Your task to perform on an android device: toggle translation in the chrome app Image 0: 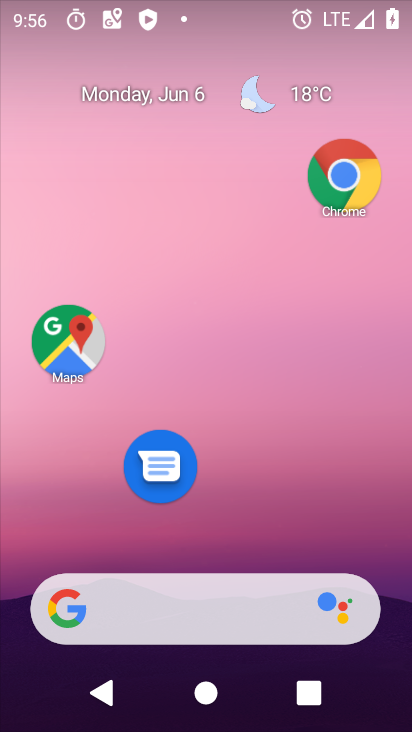
Step 0: drag from (202, 532) to (219, 88)
Your task to perform on an android device: toggle translation in the chrome app Image 1: 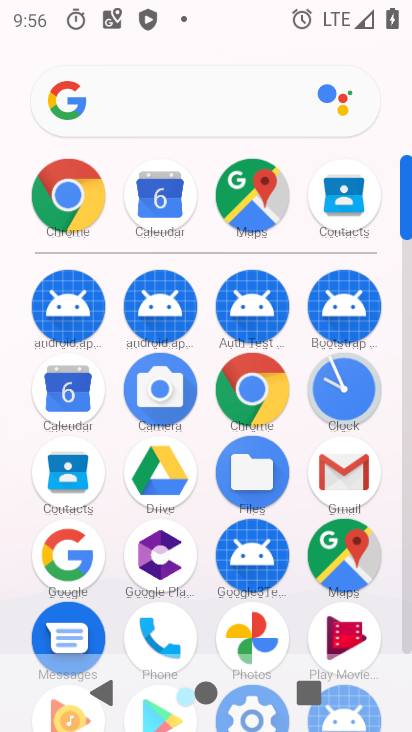
Step 1: click (257, 386)
Your task to perform on an android device: toggle translation in the chrome app Image 2: 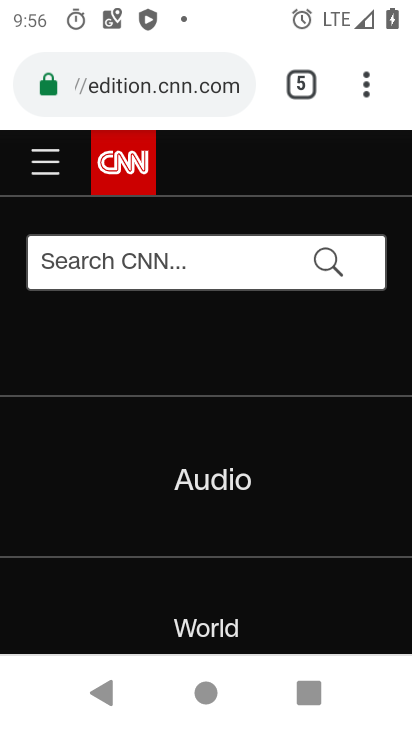
Step 2: drag from (304, 495) to (343, 150)
Your task to perform on an android device: toggle translation in the chrome app Image 3: 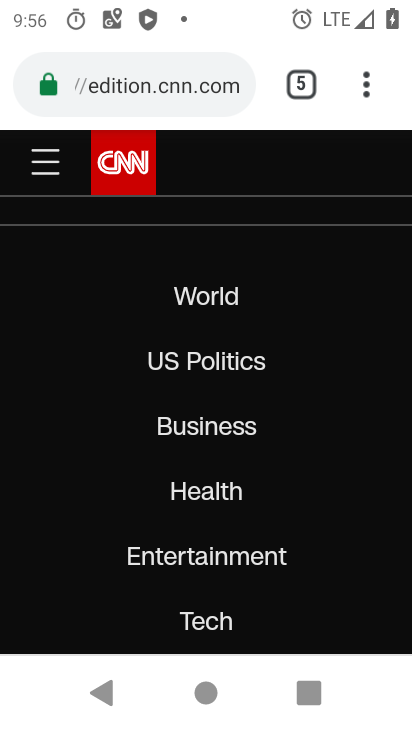
Step 3: drag from (256, 223) to (303, 718)
Your task to perform on an android device: toggle translation in the chrome app Image 4: 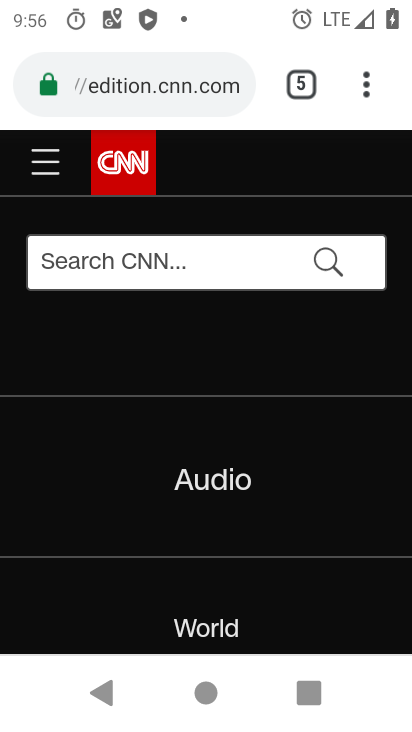
Step 4: drag from (369, 78) to (140, 505)
Your task to perform on an android device: toggle translation in the chrome app Image 5: 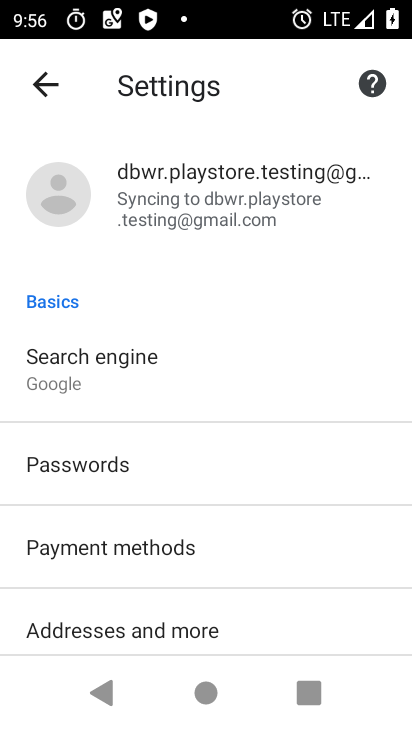
Step 5: drag from (141, 509) to (212, 218)
Your task to perform on an android device: toggle translation in the chrome app Image 6: 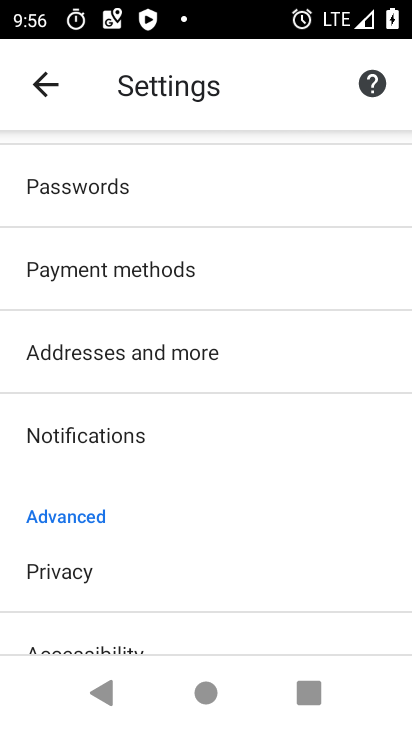
Step 6: drag from (111, 555) to (246, 117)
Your task to perform on an android device: toggle translation in the chrome app Image 7: 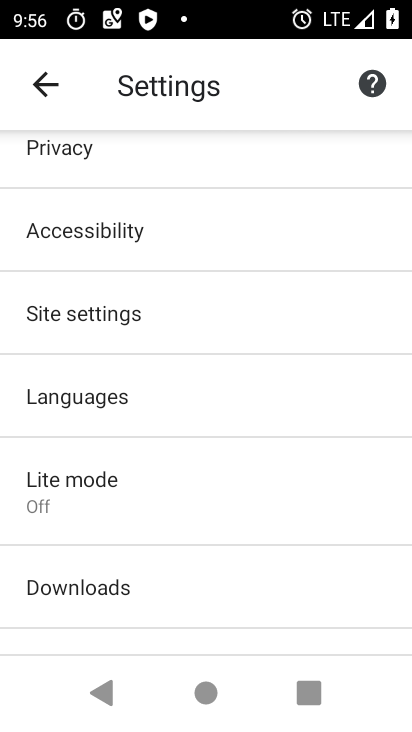
Step 7: click (186, 385)
Your task to perform on an android device: toggle translation in the chrome app Image 8: 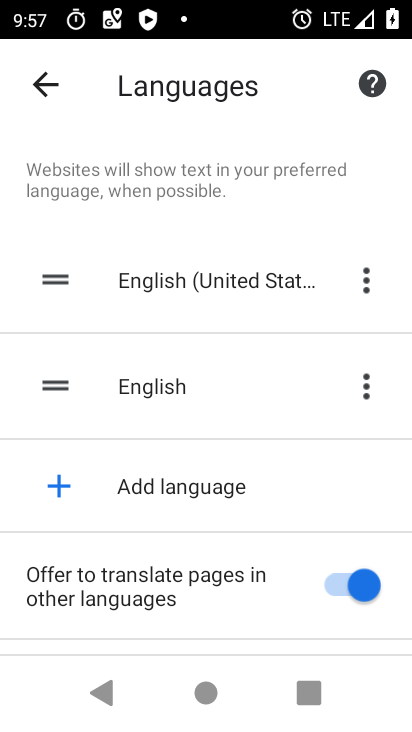
Step 8: click (338, 592)
Your task to perform on an android device: toggle translation in the chrome app Image 9: 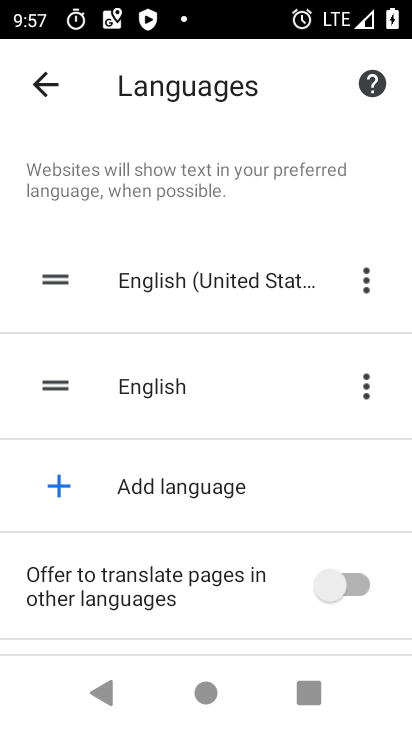
Step 9: task complete